Your task to perform on an android device: Open network settings Image 0: 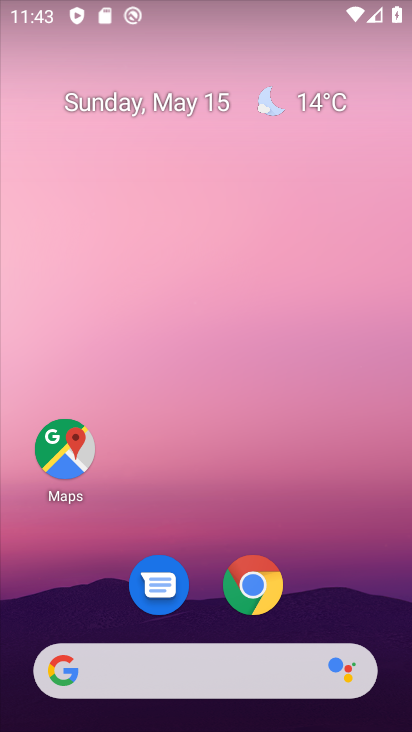
Step 0: drag from (282, 469) to (243, 29)
Your task to perform on an android device: Open network settings Image 1: 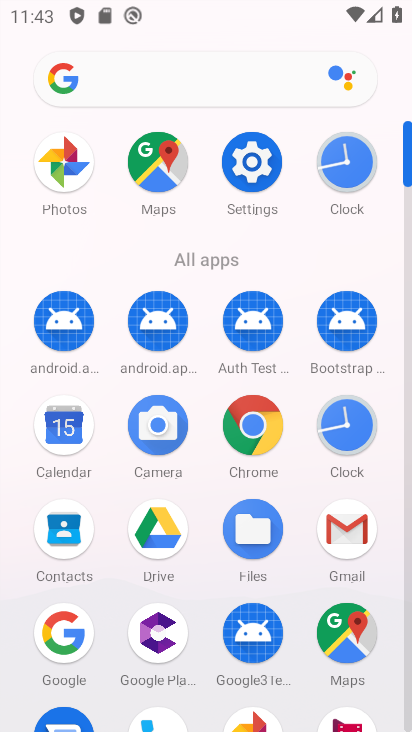
Step 1: click (247, 182)
Your task to perform on an android device: Open network settings Image 2: 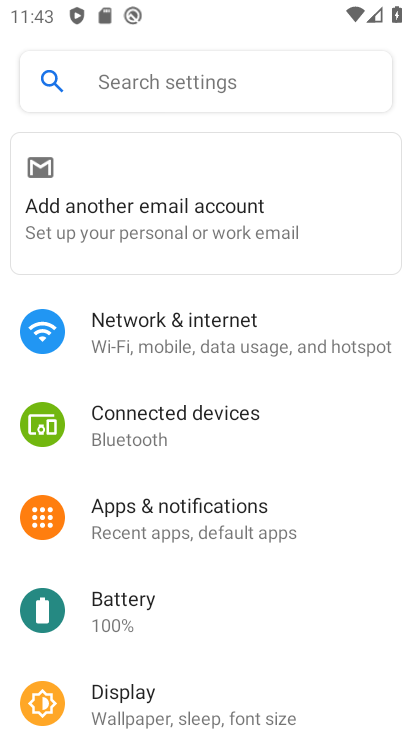
Step 2: click (242, 328)
Your task to perform on an android device: Open network settings Image 3: 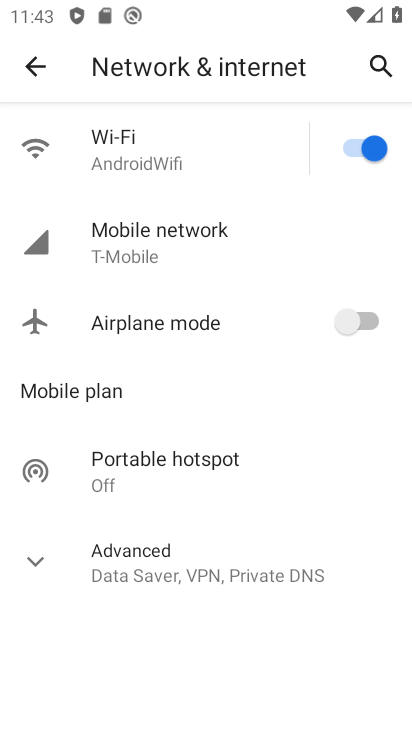
Step 3: task complete